Your task to perform on an android device: Open location settings Image 0: 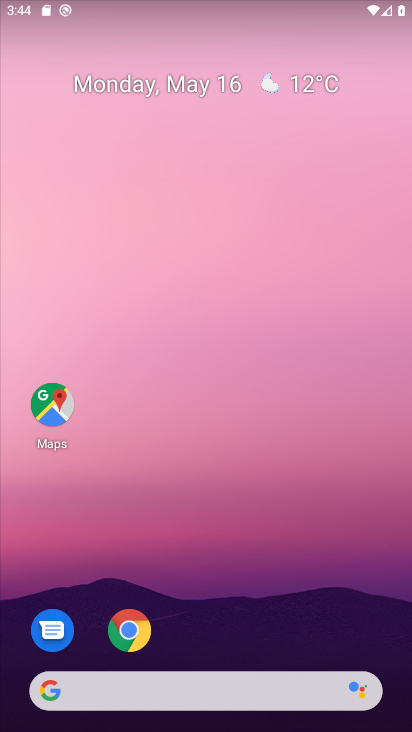
Step 0: drag from (221, 633) to (307, 132)
Your task to perform on an android device: Open location settings Image 1: 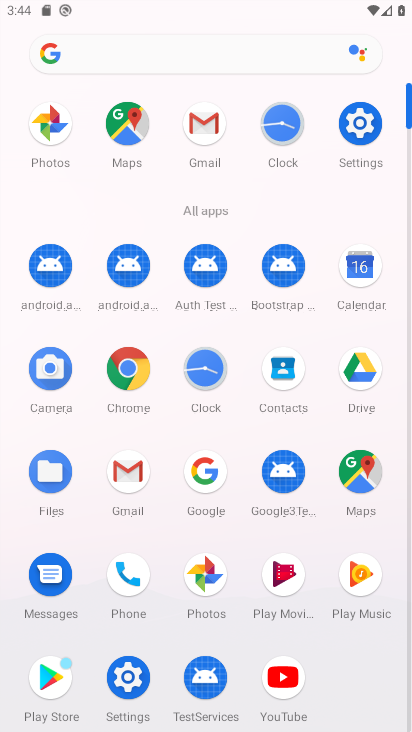
Step 1: drag from (234, 630) to (280, 432)
Your task to perform on an android device: Open location settings Image 2: 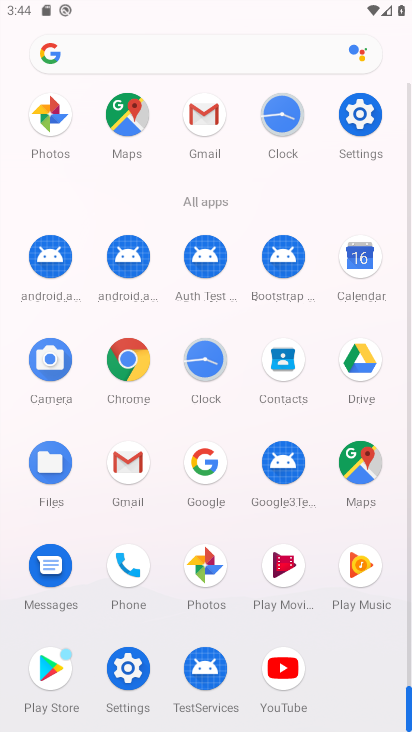
Step 2: click (132, 665)
Your task to perform on an android device: Open location settings Image 3: 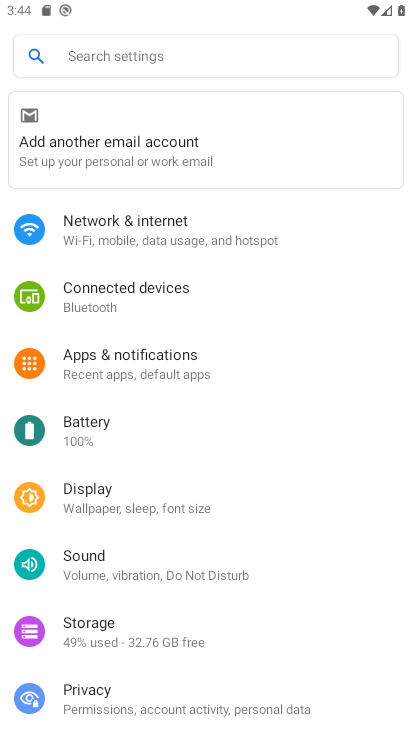
Step 3: drag from (168, 679) to (254, 381)
Your task to perform on an android device: Open location settings Image 4: 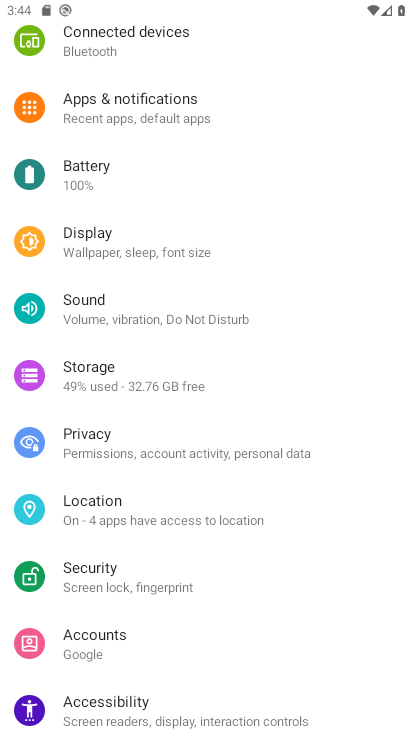
Step 4: click (165, 509)
Your task to perform on an android device: Open location settings Image 5: 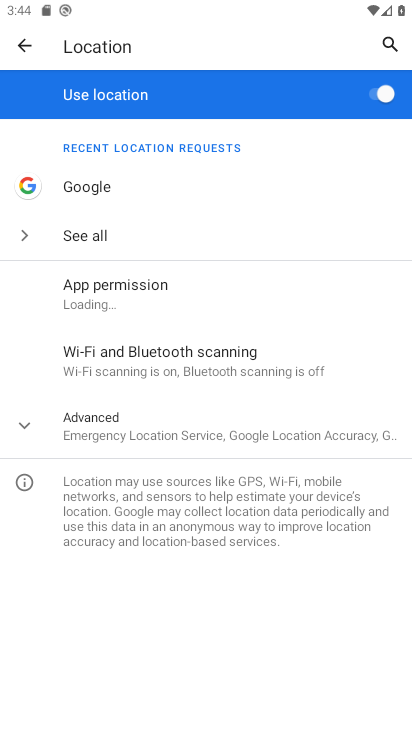
Step 5: task complete